Your task to perform on an android device: open wifi settings Image 0: 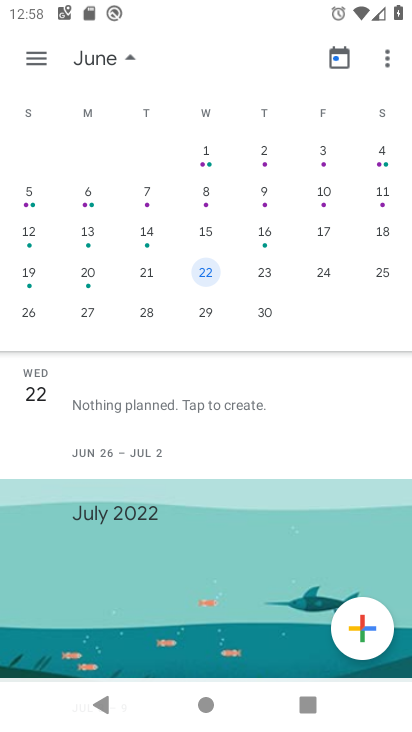
Step 0: press home button
Your task to perform on an android device: open wifi settings Image 1: 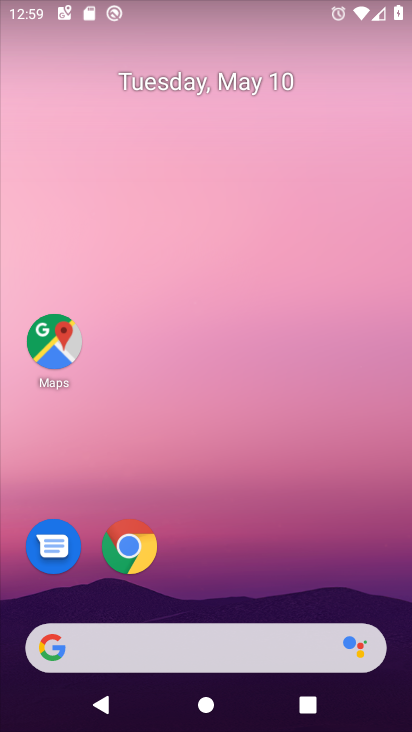
Step 1: drag from (297, 6) to (144, 696)
Your task to perform on an android device: open wifi settings Image 2: 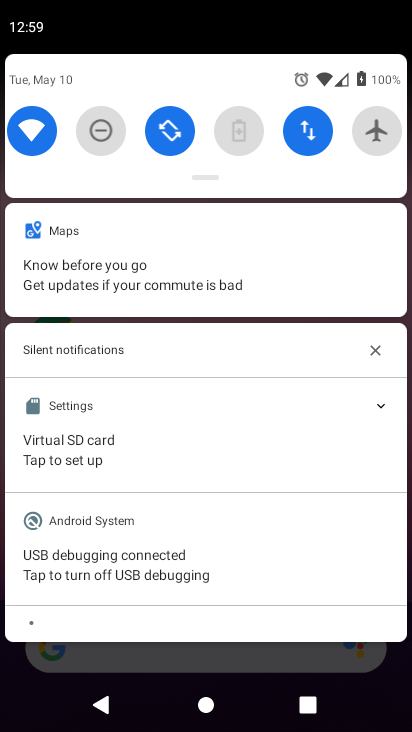
Step 2: click (32, 139)
Your task to perform on an android device: open wifi settings Image 3: 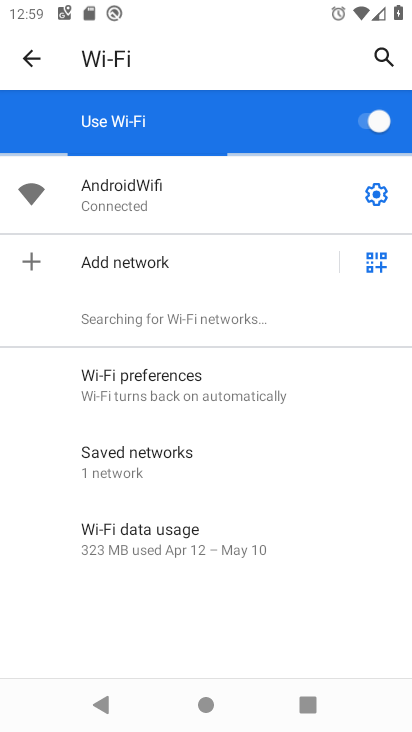
Step 3: task complete